Your task to perform on an android device: change text size in settings app Image 0: 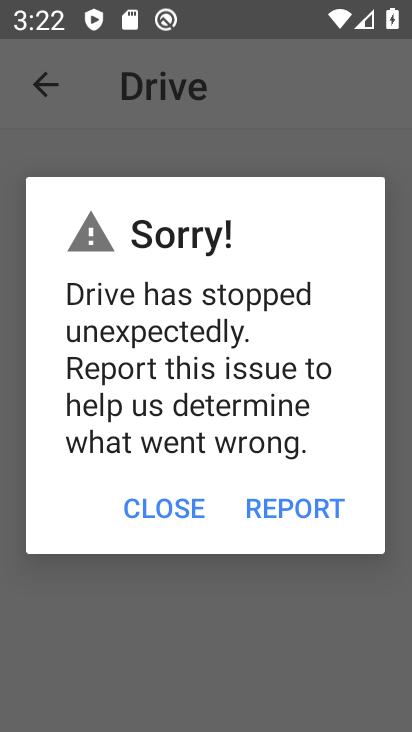
Step 0: press home button
Your task to perform on an android device: change text size in settings app Image 1: 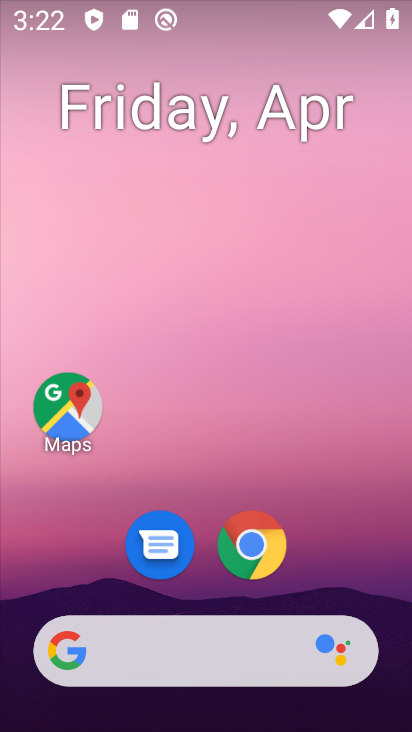
Step 1: drag from (391, 635) to (218, 25)
Your task to perform on an android device: change text size in settings app Image 2: 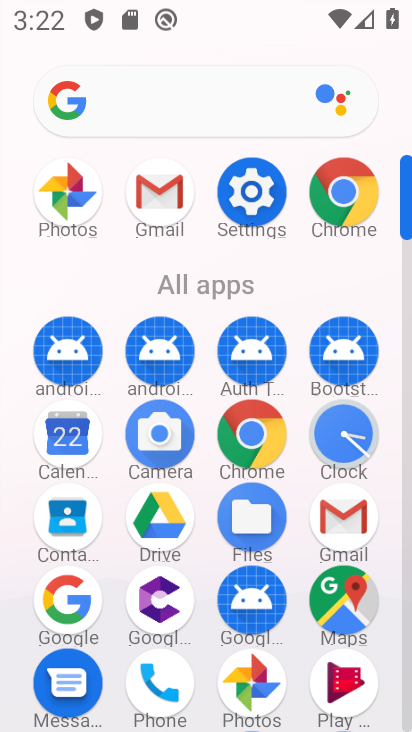
Step 2: click (405, 690)
Your task to perform on an android device: change text size in settings app Image 3: 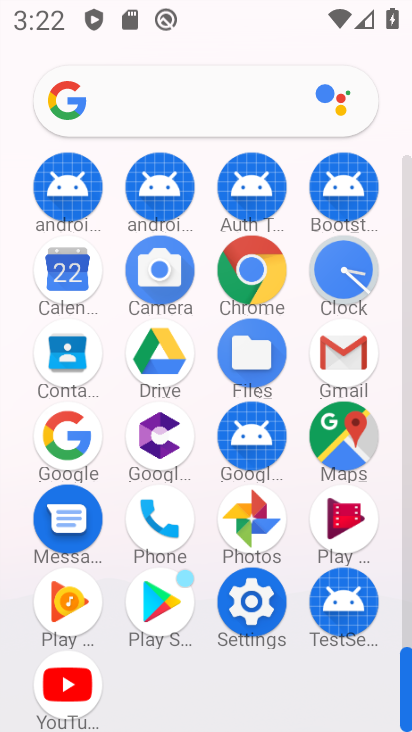
Step 3: click (256, 599)
Your task to perform on an android device: change text size in settings app Image 4: 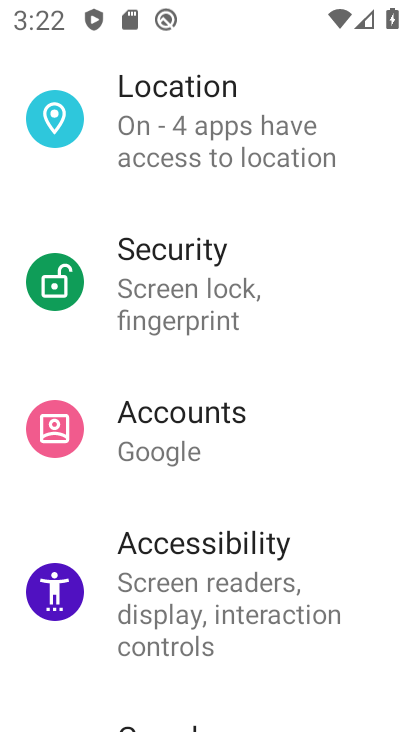
Step 4: drag from (325, 297) to (321, 542)
Your task to perform on an android device: change text size in settings app Image 5: 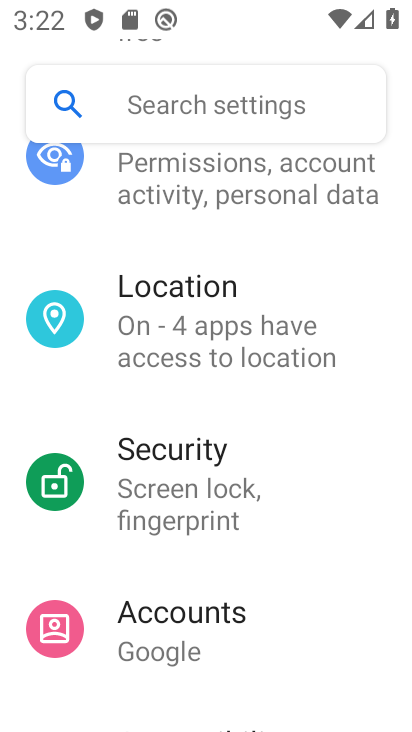
Step 5: drag from (353, 300) to (287, 589)
Your task to perform on an android device: change text size in settings app Image 6: 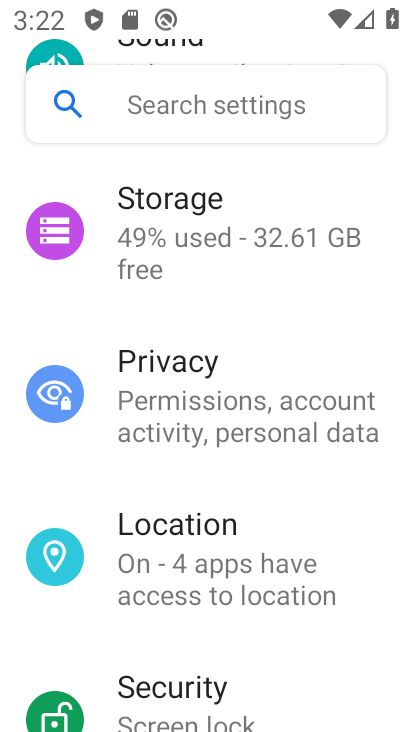
Step 6: drag from (362, 276) to (365, 553)
Your task to perform on an android device: change text size in settings app Image 7: 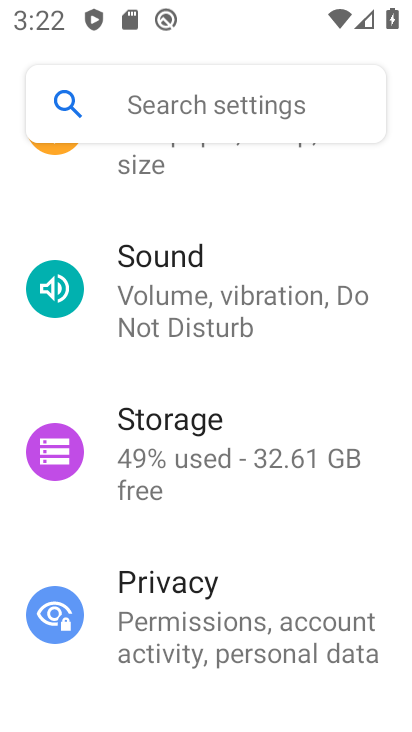
Step 7: drag from (374, 275) to (365, 556)
Your task to perform on an android device: change text size in settings app Image 8: 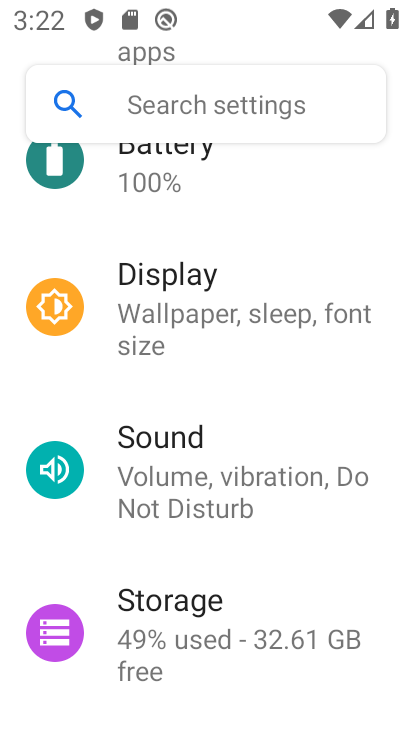
Step 8: click (162, 302)
Your task to perform on an android device: change text size in settings app Image 9: 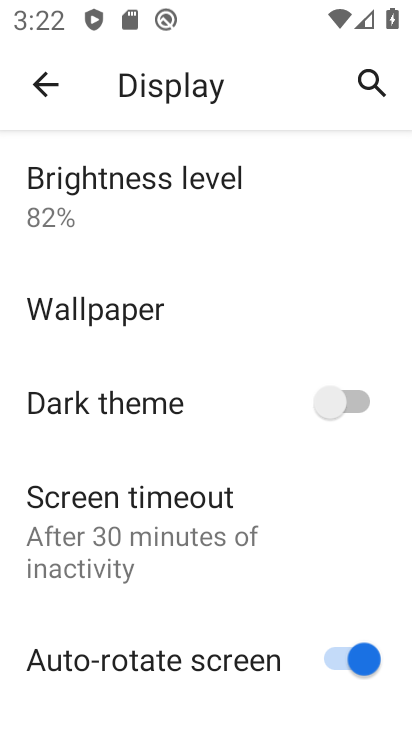
Step 9: drag from (309, 542) to (384, 190)
Your task to perform on an android device: change text size in settings app Image 10: 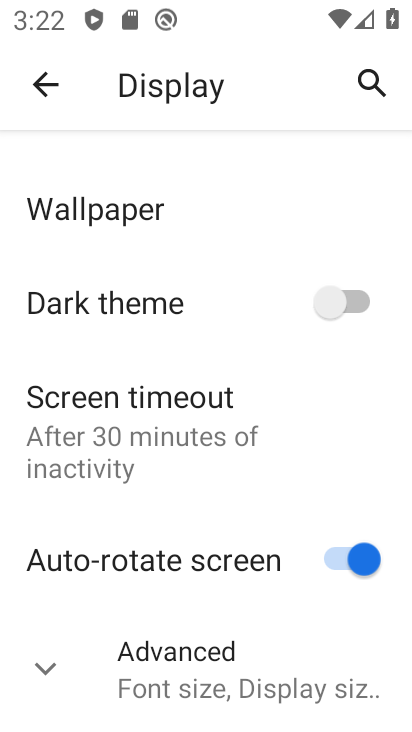
Step 10: click (41, 662)
Your task to perform on an android device: change text size in settings app Image 11: 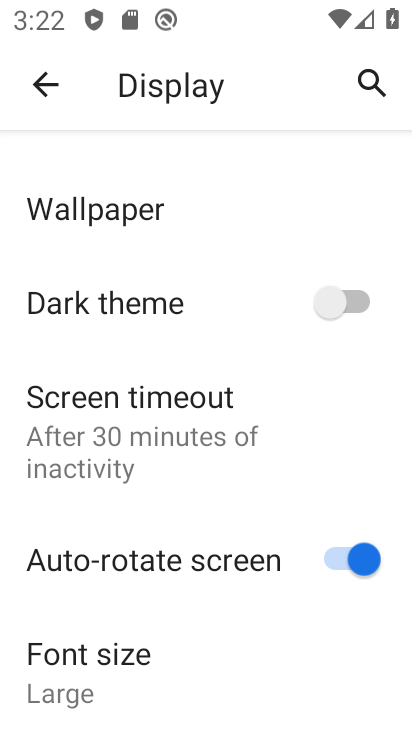
Step 11: drag from (310, 604) to (379, 380)
Your task to perform on an android device: change text size in settings app Image 12: 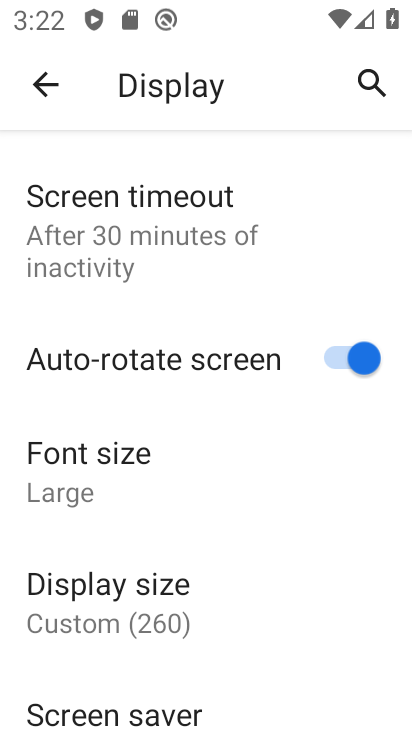
Step 12: click (55, 457)
Your task to perform on an android device: change text size in settings app Image 13: 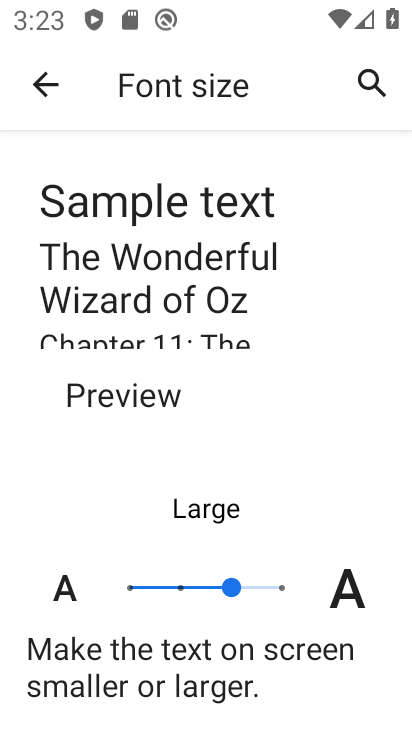
Step 13: click (177, 592)
Your task to perform on an android device: change text size in settings app Image 14: 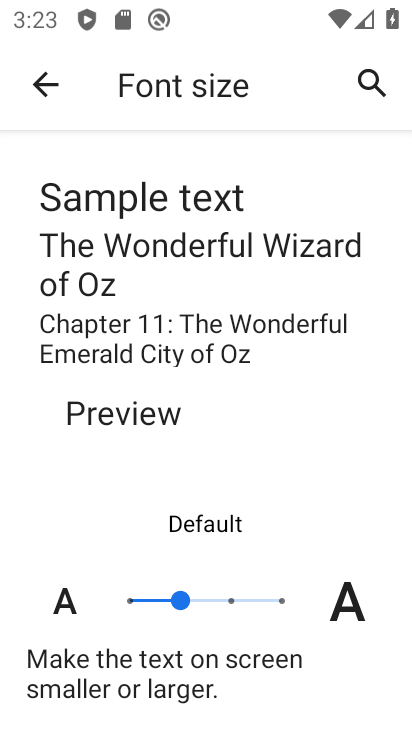
Step 14: task complete